Your task to perform on an android device: Open Youtube and go to "Your channel" Image 0: 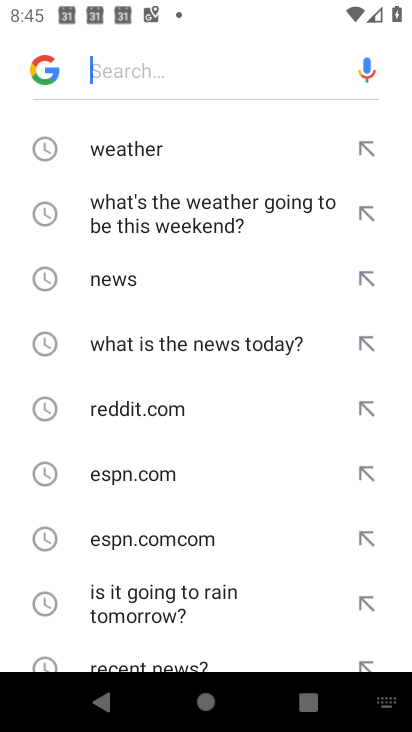
Step 0: press home button
Your task to perform on an android device: Open Youtube and go to "Your channel" Image 1: 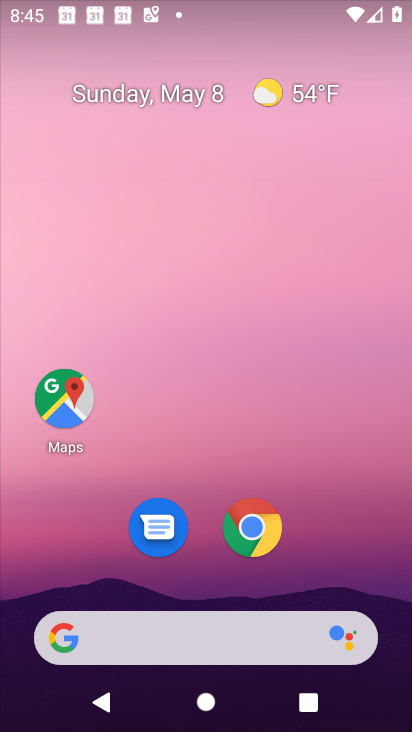
Step 1: drag from (336, 574) to (242, 218)
Your task to perform on an android device: Open Youtube and go to "Your channel" Image 2: 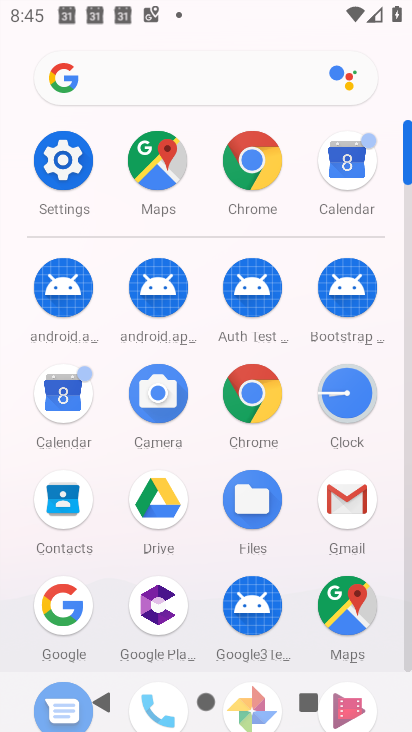
Step 2: drag from (289, 624) to (233, 388)
Your task to perform on an android device: Open Youtube and go to "Your channel" Image 3: 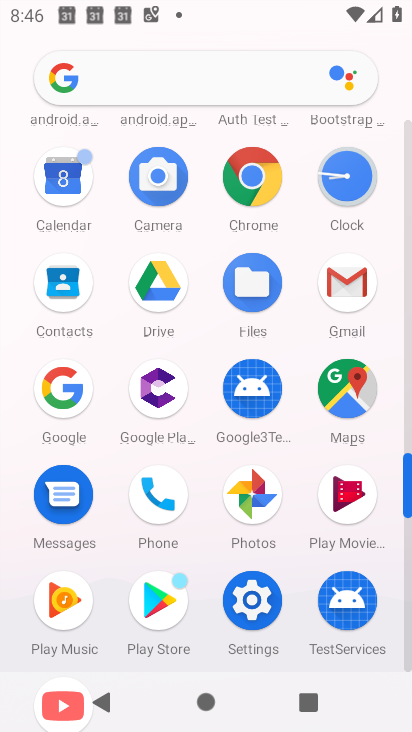
Step 3: drag from (115, 644) to (106, 405)
Your task to perform on an android device: Open Youtube and go to "Your channel" Image 4: 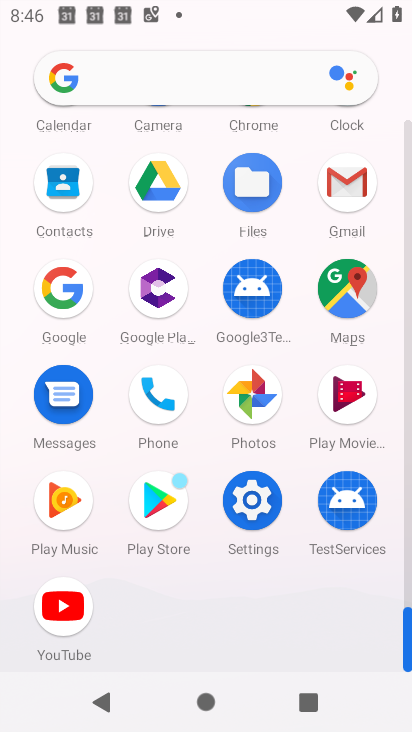
Step 4: click (65, 608)
Your task to perform on an android device: Open Youtube and go to "Your channel" Image 5: 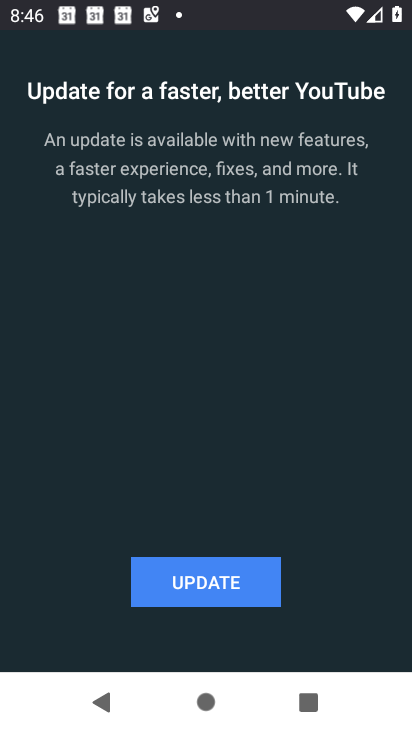
Step 5: click (255, 576)
Your task to perform on an android device: Open Youtube and go to "Your channel" Image 6: 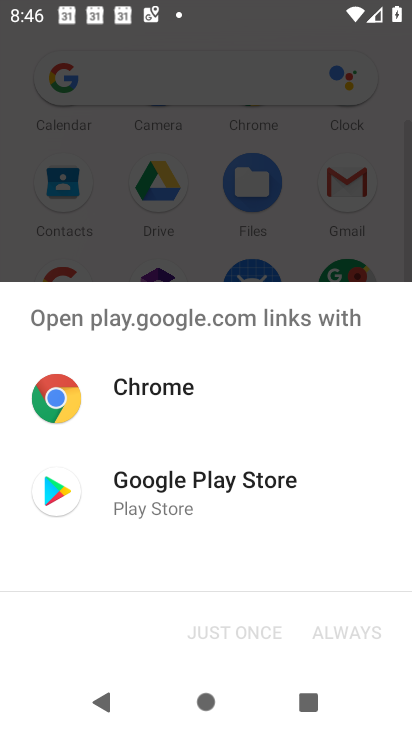
Step 6: click (135, 500)
Your task to perform on an android device: Open Youtube and go to "Your channel" Image 7: 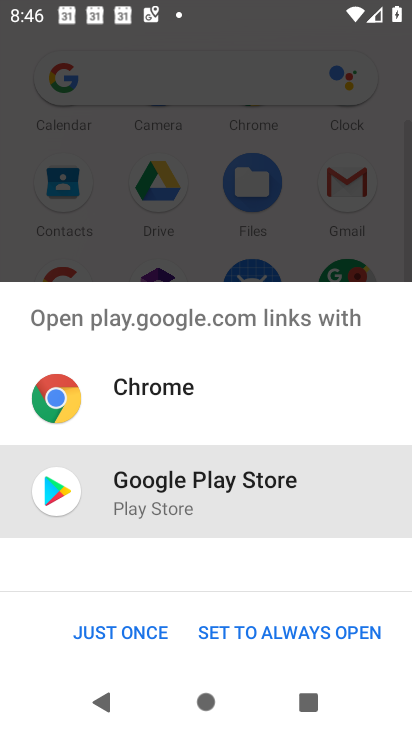
Step 7: click (76, 628)
Your task to perform on an android device: Open Youtube and go to "Your channel" Image 8: 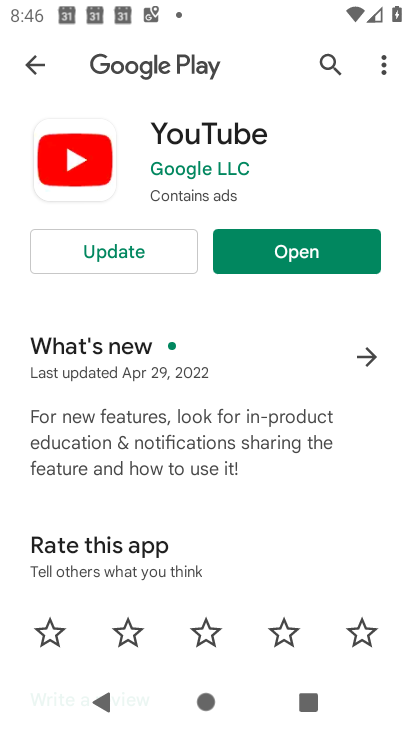
Step 8: click (146, 263)
Your task to perform on an android device: Open Youtube and go to "Your channel" Image 9: 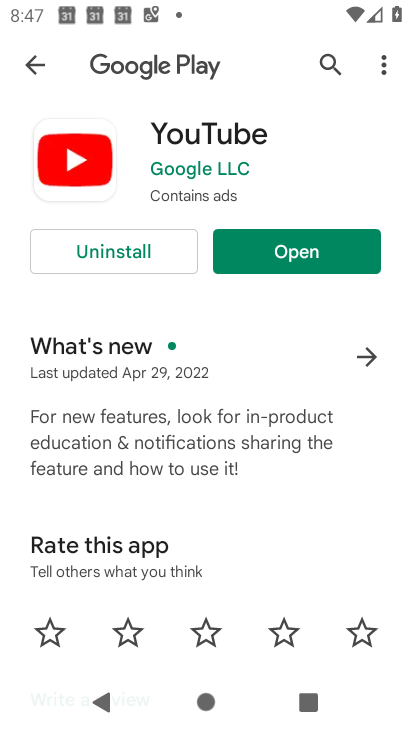
Step 9: click (232, 249)
Your task to perform on an android device: Open Youtube and go to "Your channel" Image 10: 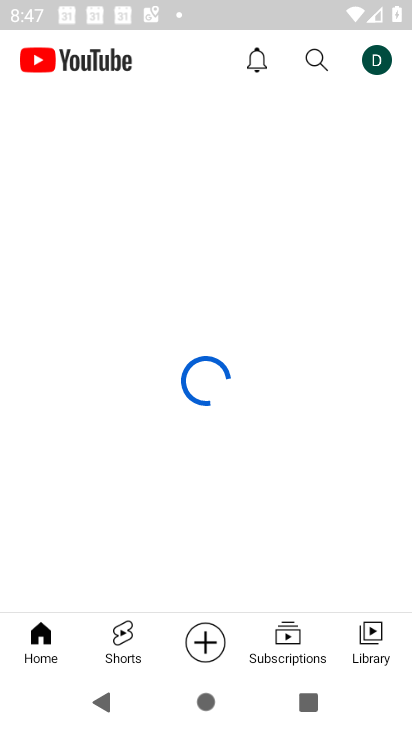
Step 10: click (379, 60)
Your task to perform on an android device: Open Youtube and go to "Your channel" Image 11: 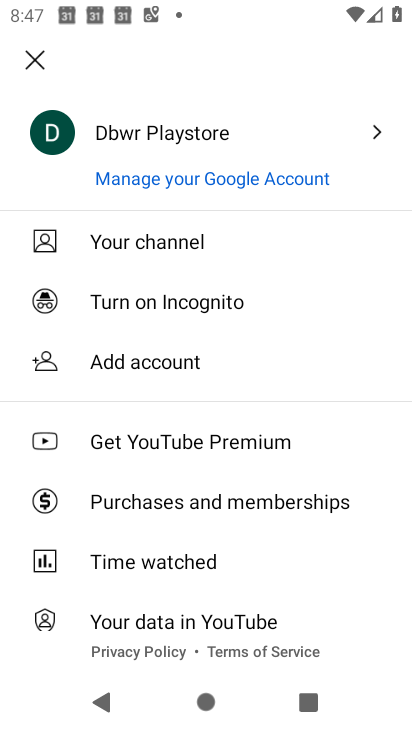
Step 11: click (169, 245)
Your task to perform on an android device: Open Youtube and go to "Your channel" Image 12: 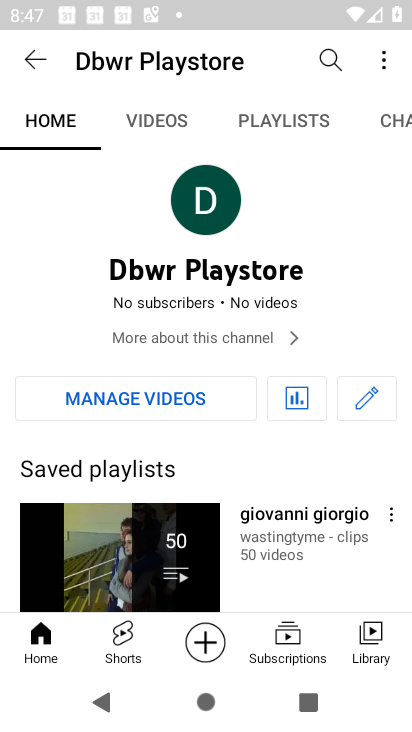
Step 12: task complete